Your task to perform on an android device: Open Google Chrome Image 0: 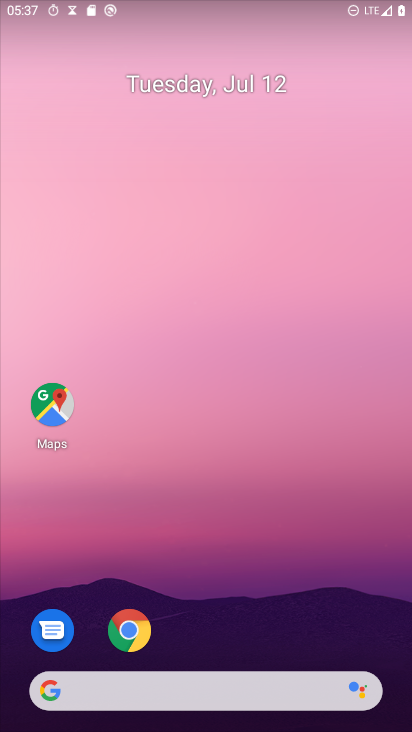
Step 0: drag from (295, 685) to (268, 16)
Your task to perform on an android device: Open Google Chrome Image 1: 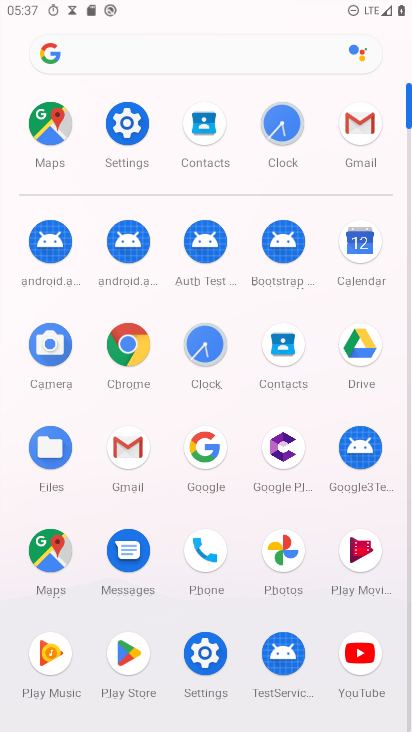
Step 1: click (145, 343)
Your task to perform on an android device: Open Google Chrome Image 2: 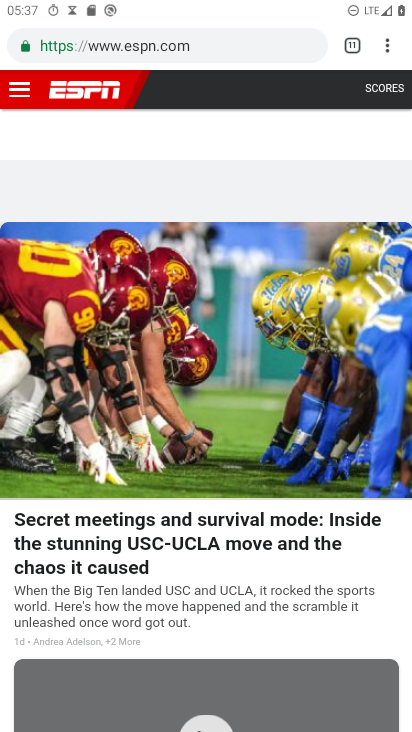
Step 2: task complete